Your task to perform on an android device: Go to Yahoo.com Image 0: 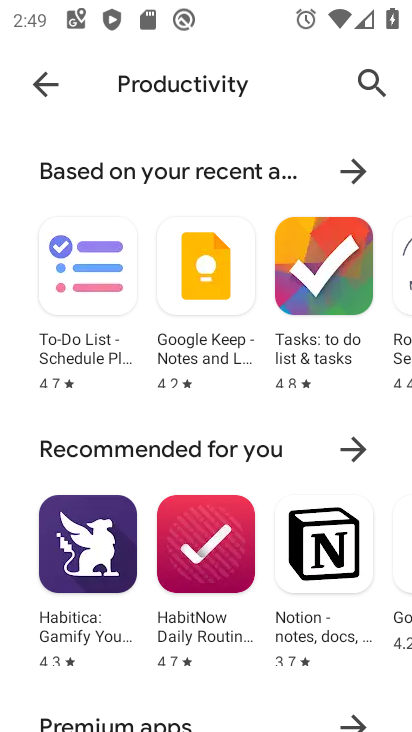
Step 0: press home button
Your task to perform on an android device: Go to Yahoo.com Image 1: 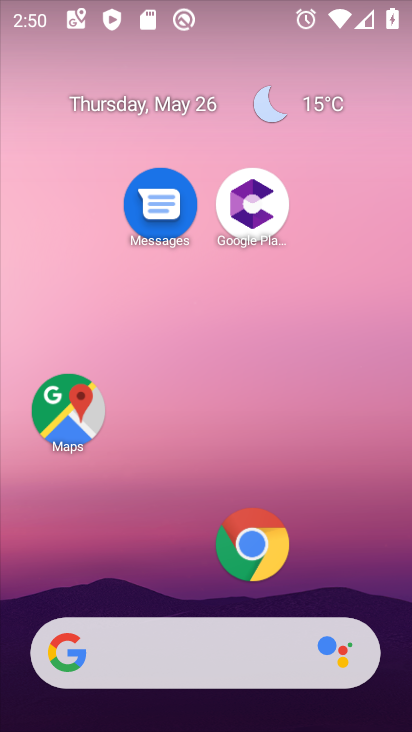
Step 1: click (257, 535)
Your task to perform on an android device: Go to Yahoo.com Image 2: 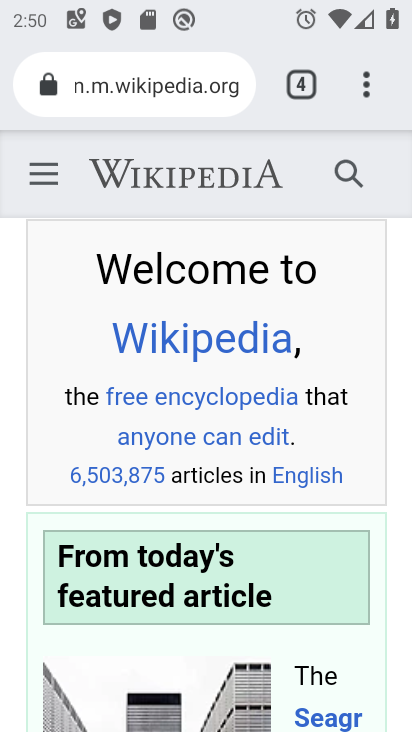
Step 2: click (283, 91)
Your task to perform on an android device: Go to Yahoo.com Image 3: 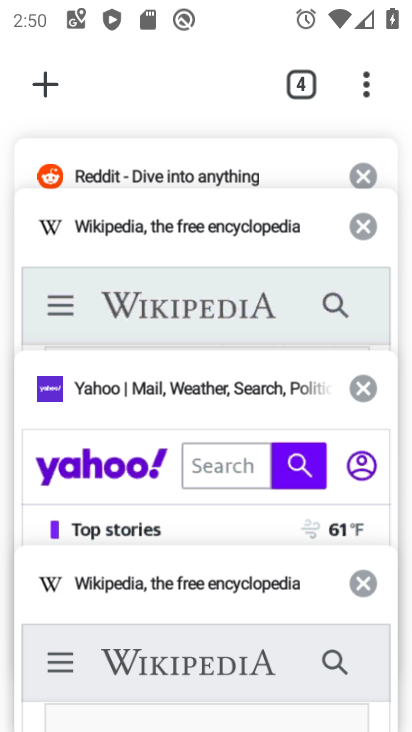
Step 3: click (159, 449)
Your task to perform on an android device: Go to Yahoo.com Image 4: 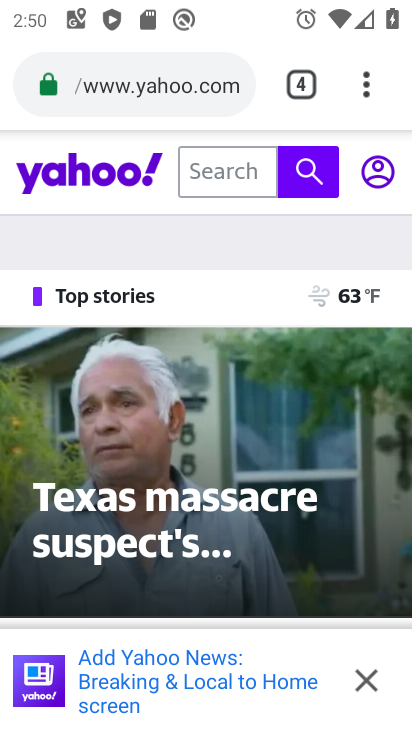
Step 4: task complete